Your task to perform on an android device: Open Android settings Image 0: 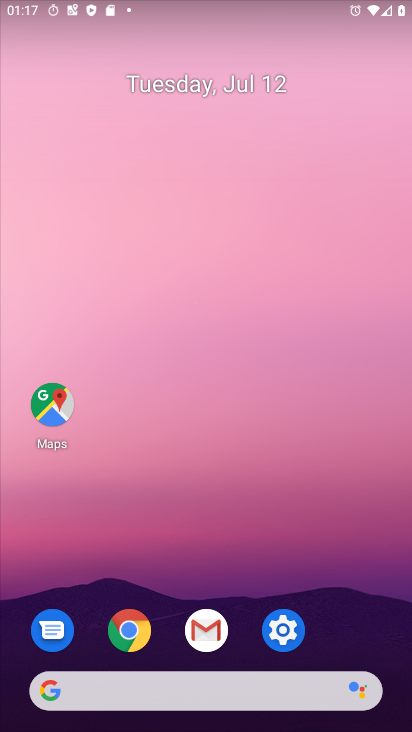
Step 0: click (285, 633)
Your task to perform on an android device: Open Android settings Image 1: 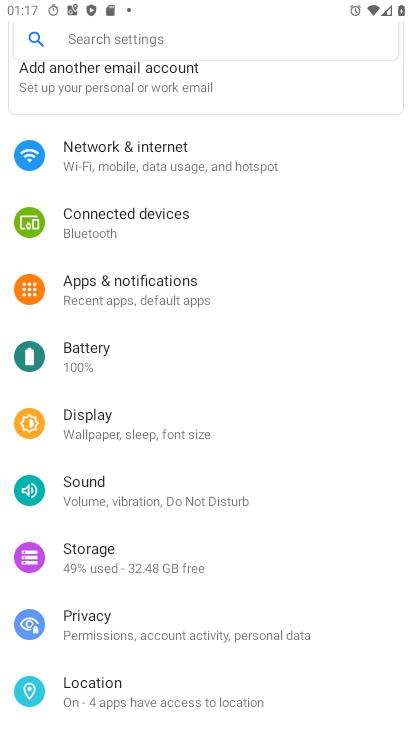
Step 1: click (117, 42)
Your task to perform on an android device: Open Android settings Image 2: 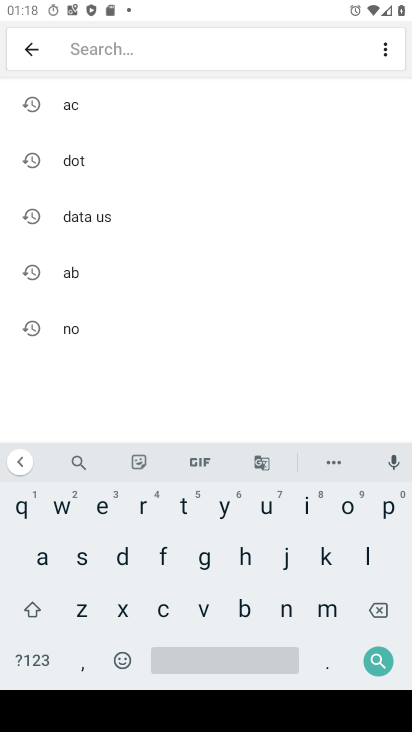
Step 2: click (41, 557)
Your task to perform on an android device: Open Android settings Image 3: 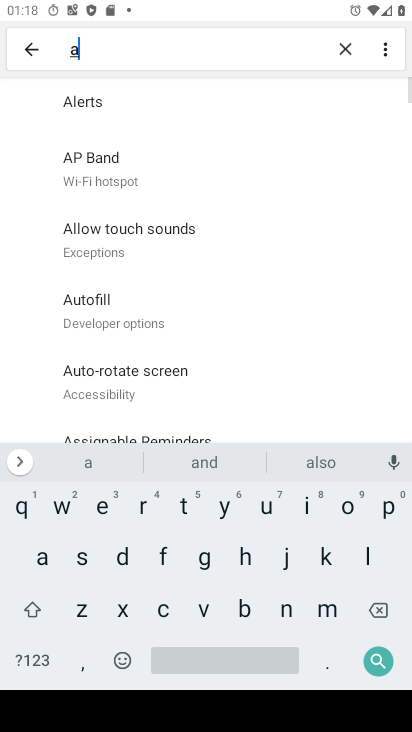
Step 3: click (290, 613)
Your task to perform on an android device: Open Android settings Image 4: 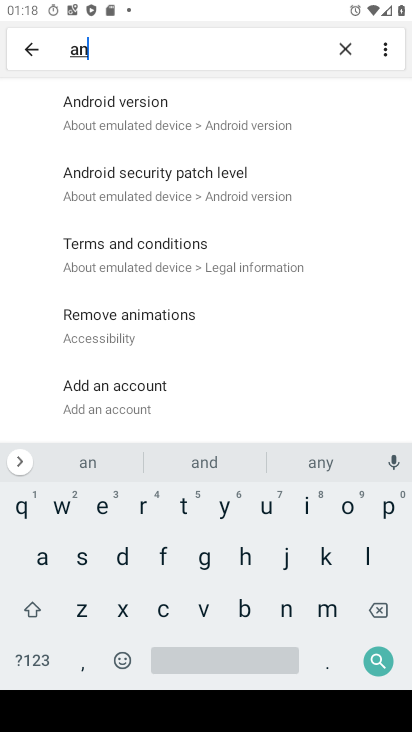
Step 4: click (156, 111)
Your task to perform on an android device: Open Android settings Image 5: 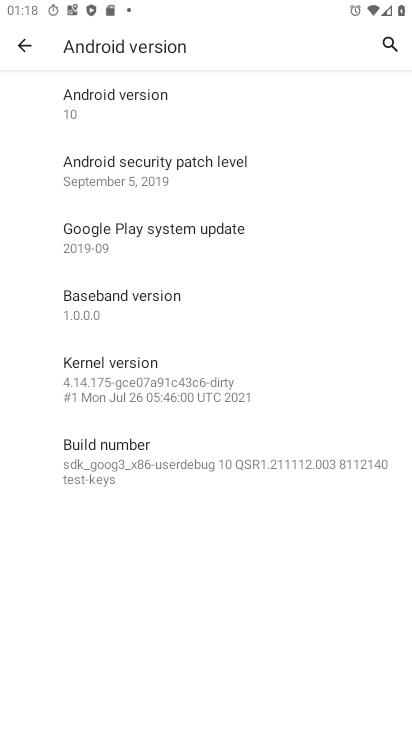
Step 5: task complete